Your task to perform on an android device: Open internet settings Image 0: 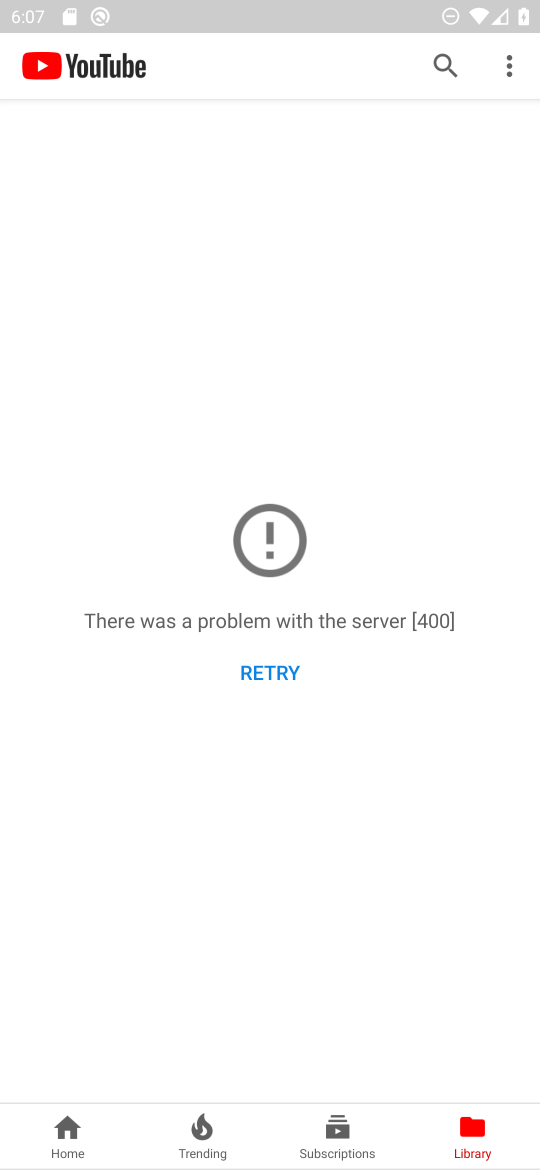
Step 0: press home button
Your task to perform on an android device: Open internet settings Image 1: 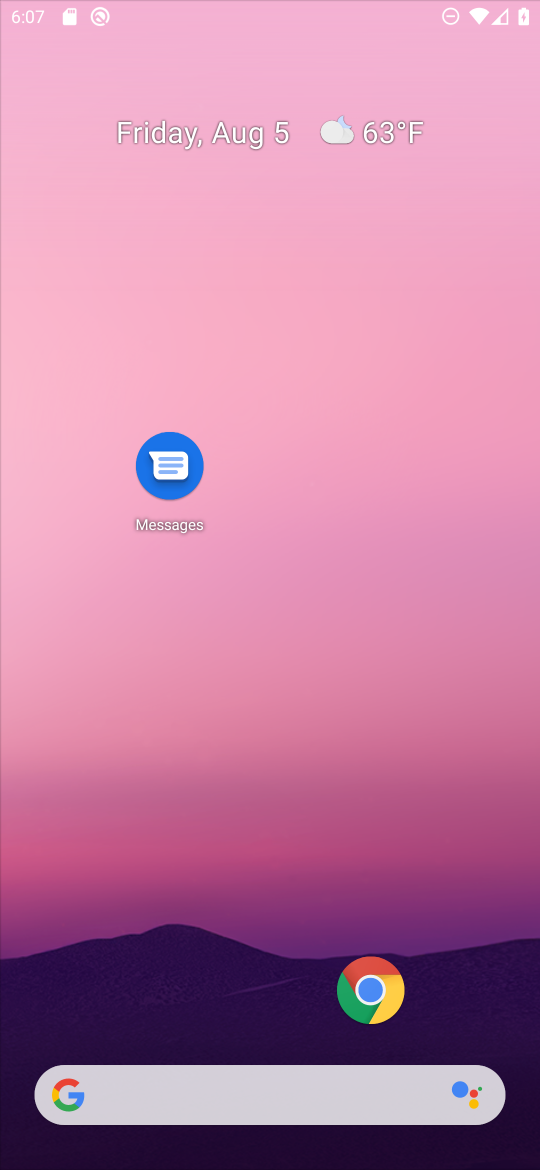
Step 1: drag from (198, 1085) to (98, 663)
Your task to perform on an android device: Open internet settings Image 2: 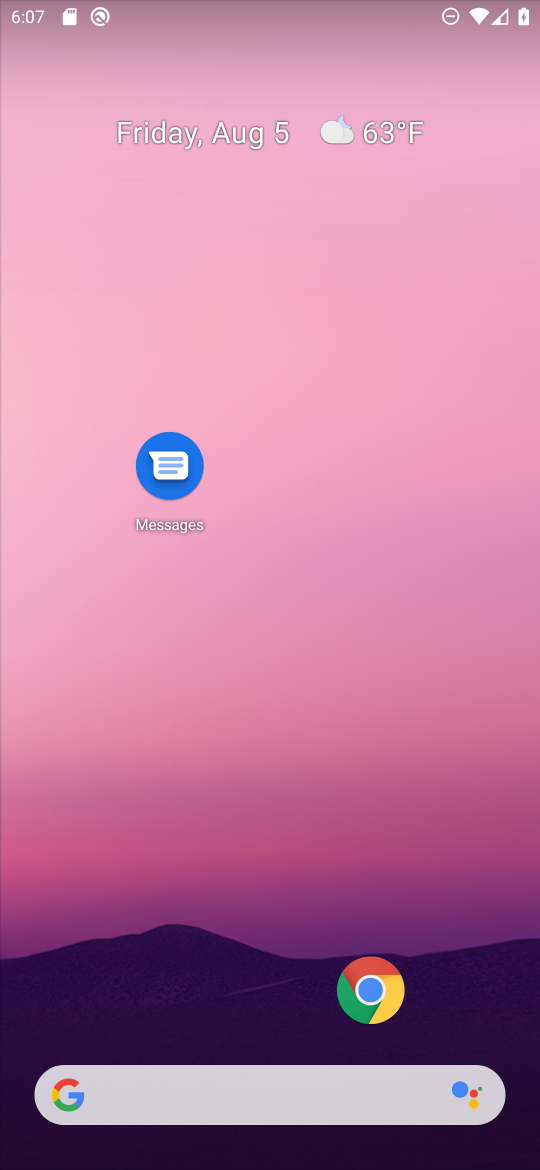
Step 2: drag from (212, 846) to (166, 503)
Your task to perform on an android device: Open internet settings Image 3: 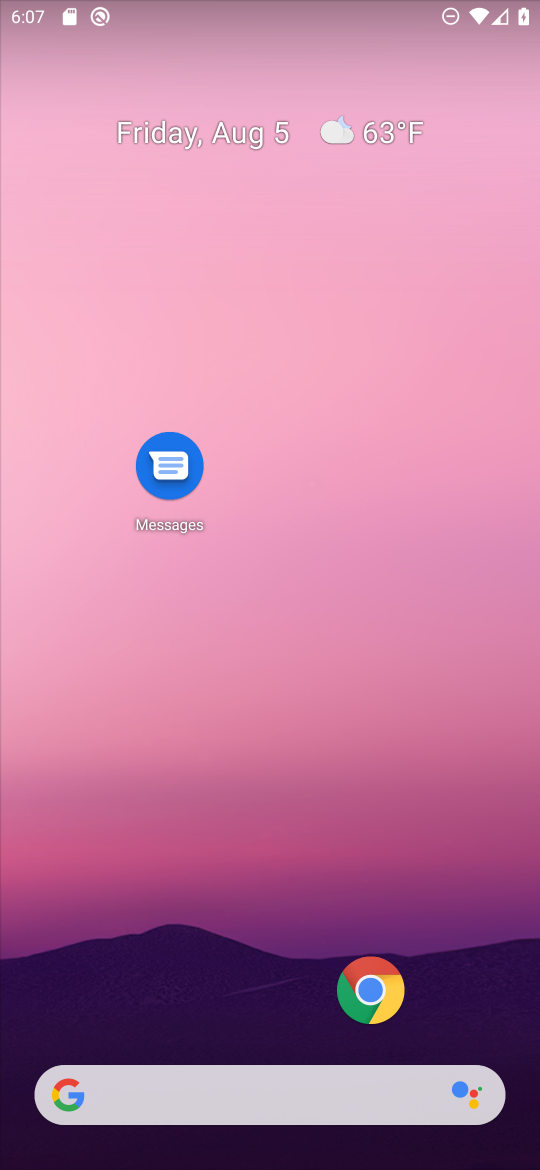
Step 3: drag from (202, 1065) to (134, 569)
Your task to perform on an android device: Open internet settings Image 4: 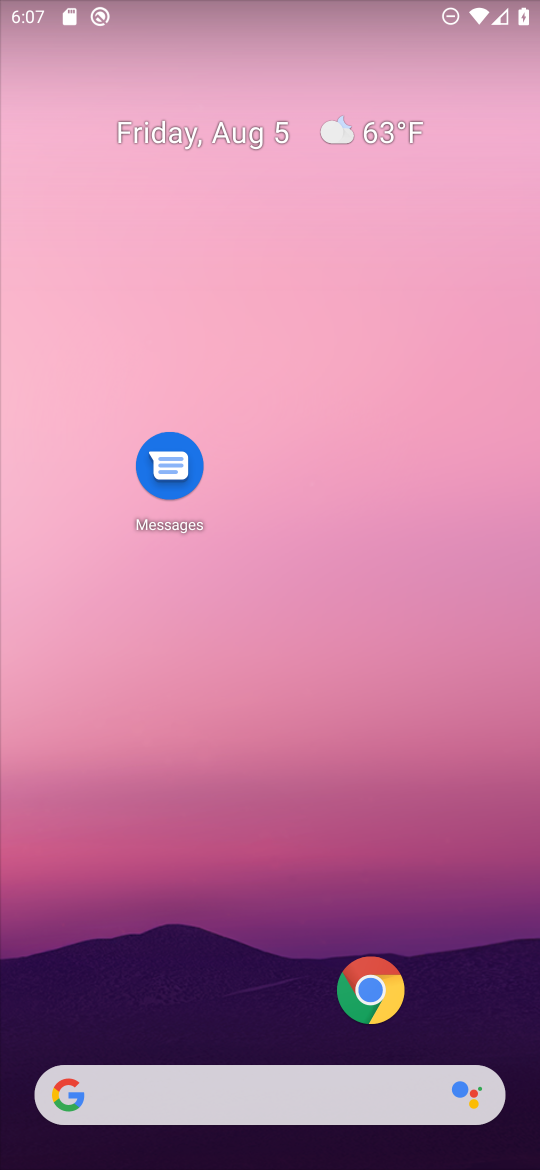
Step 4: drag from (278, 1031) to (148, 413)
Your task to perform on an android device: Open internet settings Image 5: 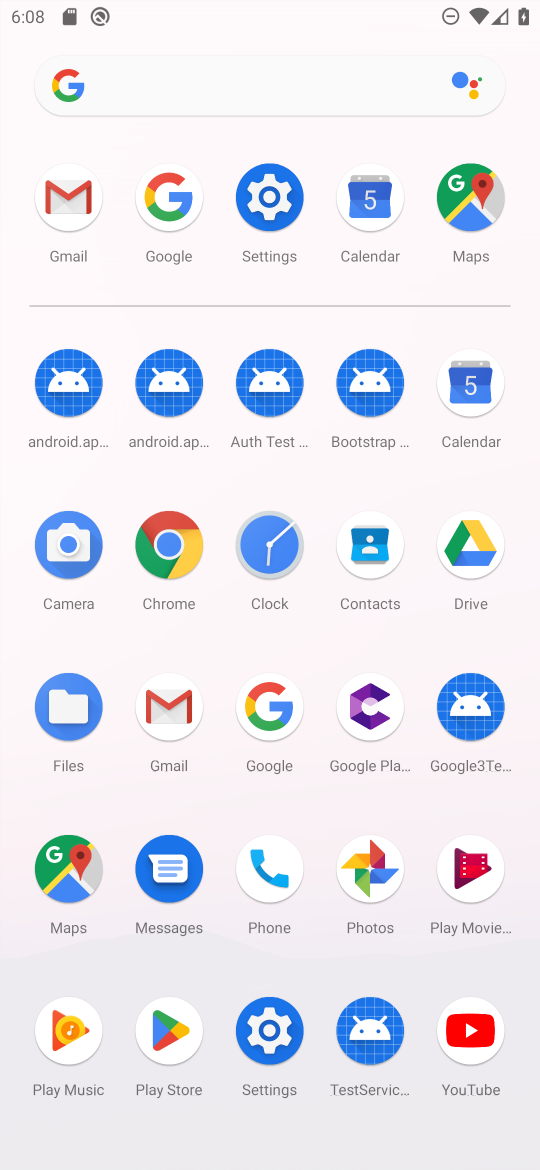
Step 5: click (238, 184)
Your task to perform on an android device: Open internet settings Image 6: 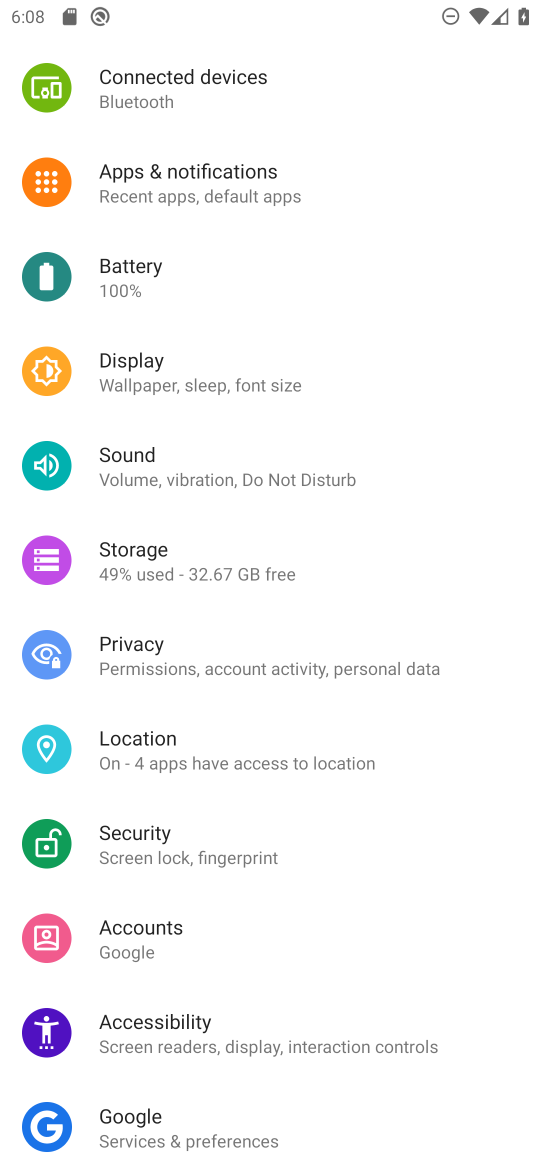
Step 6: drag from (147, 141) to (179, 595)
Your task to perform on an android device: Open internet settings Image 7: 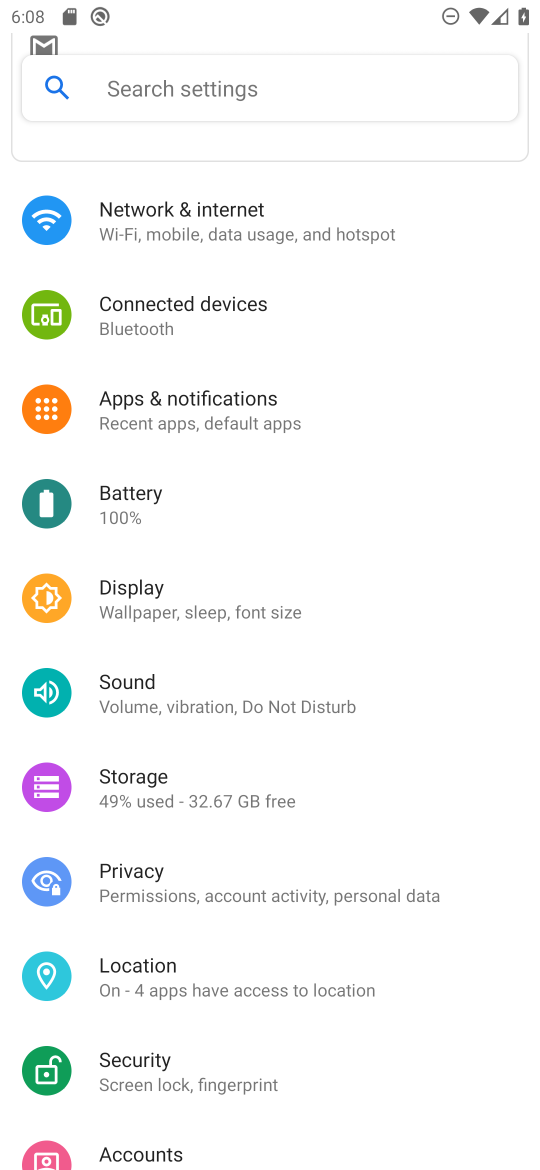
Step 7: click (145, 219)
Your task to perform on an android device: Open internet settings Image 8: 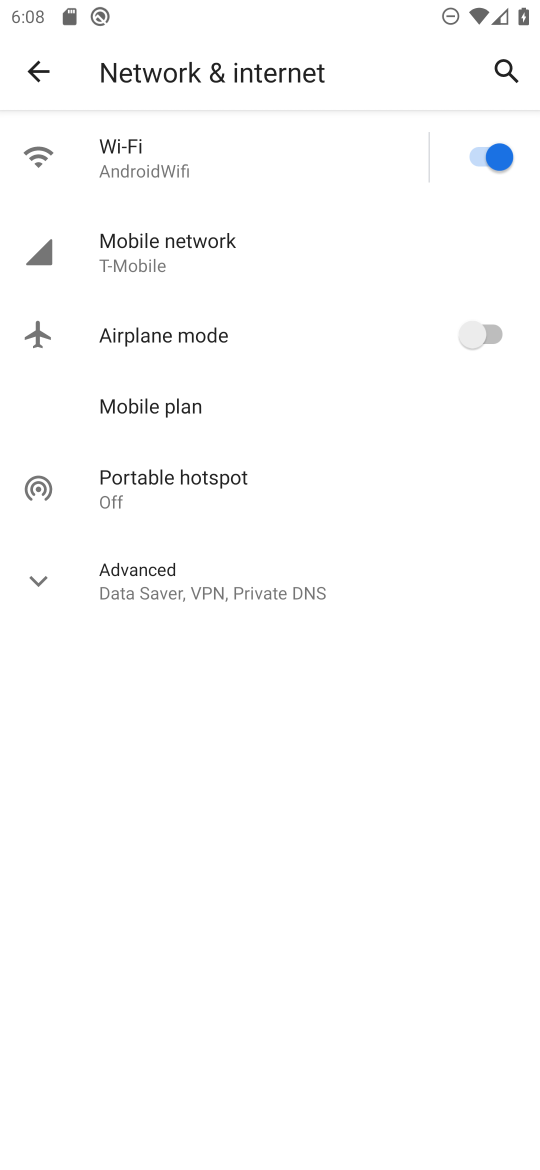
Step 8: click (151, 575)
Your task to perform on an android device: Open internet settings Image 9: 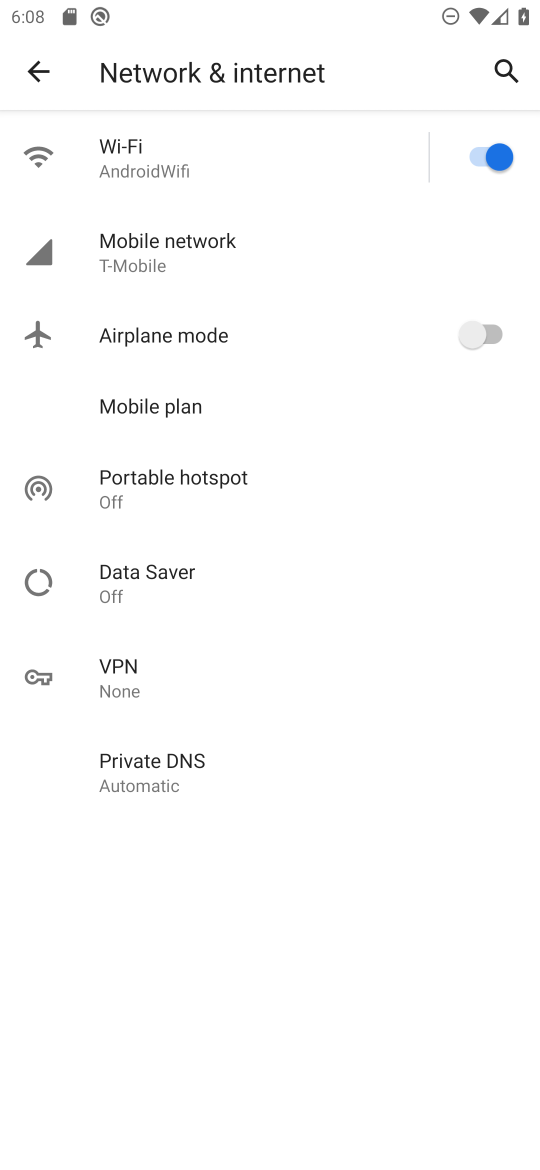
Step 9: task complete